Your task to perform on an android device: choose inbox layout in the gmail app Image 0: 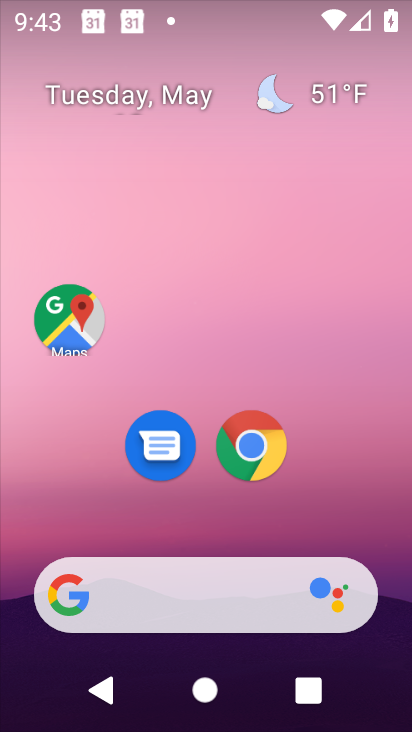
Step 0: drag from (175, 576) to (150, 106)
Your task to perform on an android device: choose inbox layout in the gmail app Image 1: 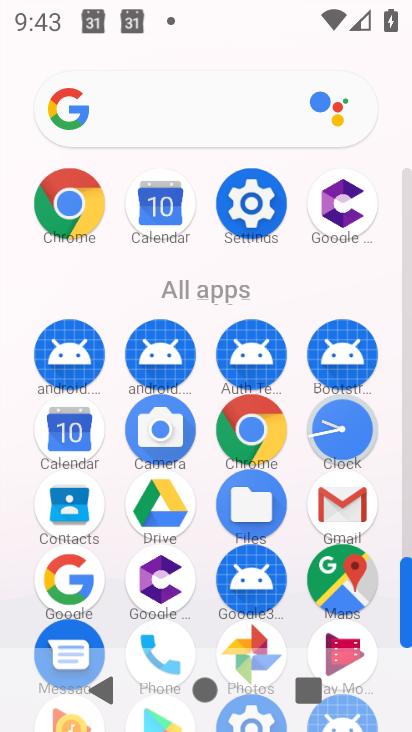
Step 1: click (353, 498)
Your task to perform on an android device: choose inbox layout in the gmail app Image 2: 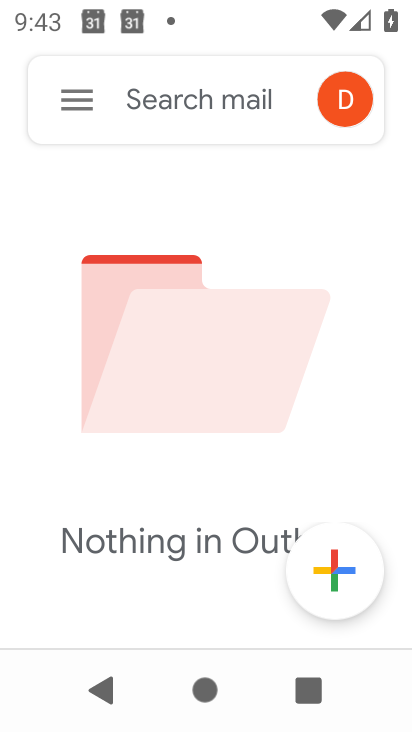
Step 2: click (75, 111)
Your task to perform on an android device: choose inbox layout in the gmail app Image 3: 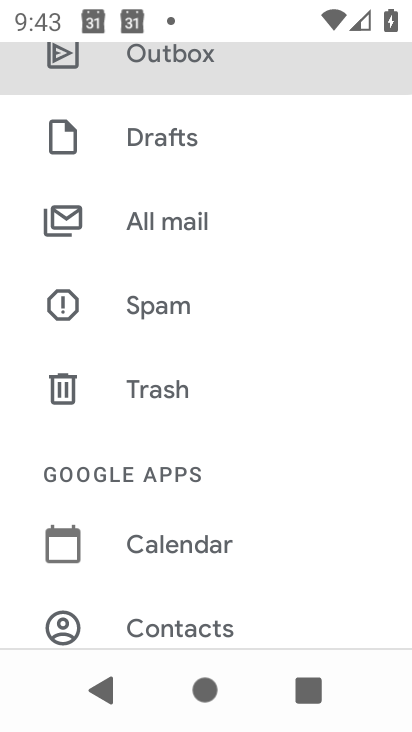
Step 3: drag from (196, 526) to (163, 17)
Your task to perform on an android device: choose inbox layout in the gmail app Image 4: 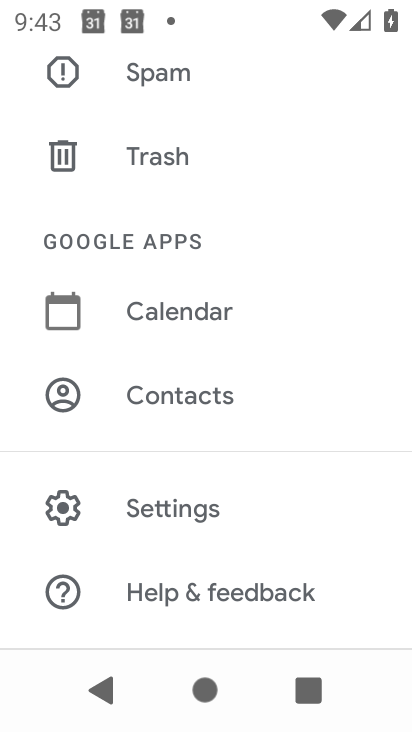
Step 4: click (186, 494)
Your task to perform on an android device: choose inbox layout in the gmail app Image 5: 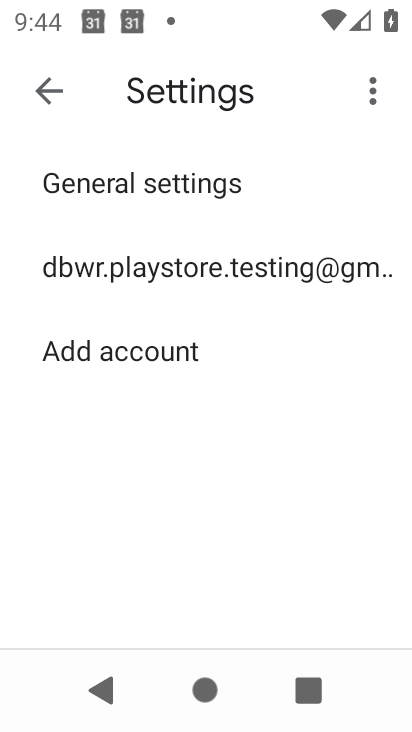
Step 5: click (161, 264)
Your task to perform on an android device: choose inbox layout in the gmail app Image 6: 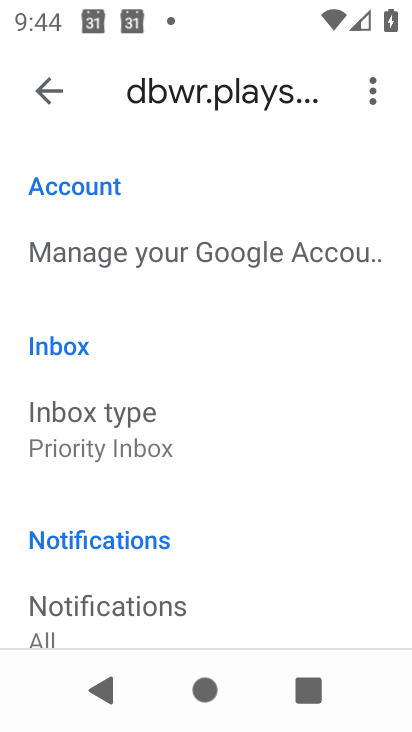
Step 6: click (138, 442)
Your task to perform on an android device: choose inbox layout in the gmail app Image 7: 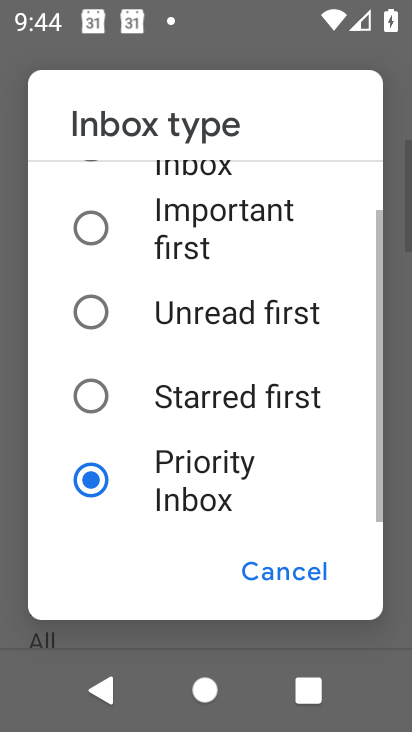
Step 7: click (166, 401)
Your task to perform on an android device: choose inbox layout in the gmail app Image 8: 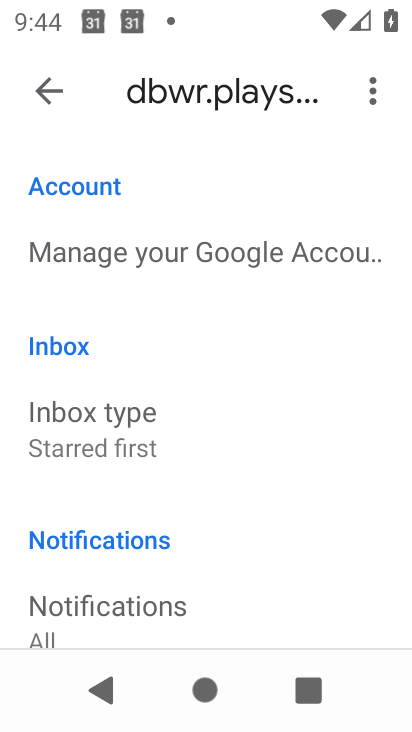
Step 8: task complete